Your task to perform on an android device: Open internet settings Image 0: 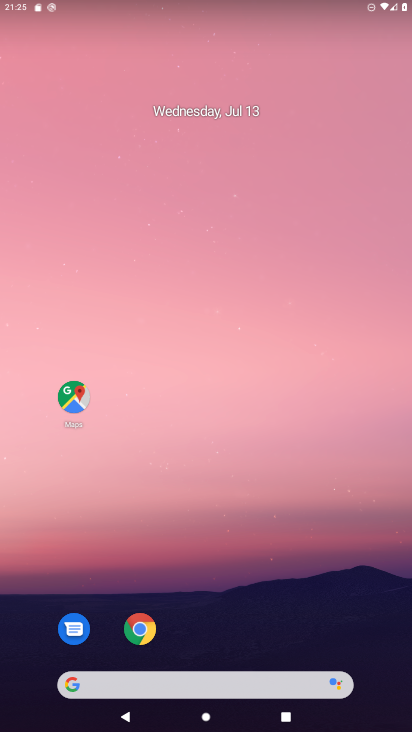
Step 0: drag from (223, 598) to (235, 134)
Your task to perform on an android device: Open internet settings Image 1: 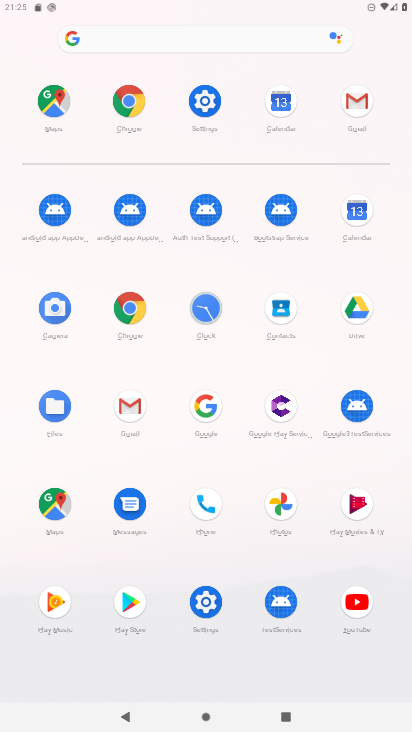
Step 1: click (215, 611)
Your task to perform on an android device: Open internet settings Image 2: 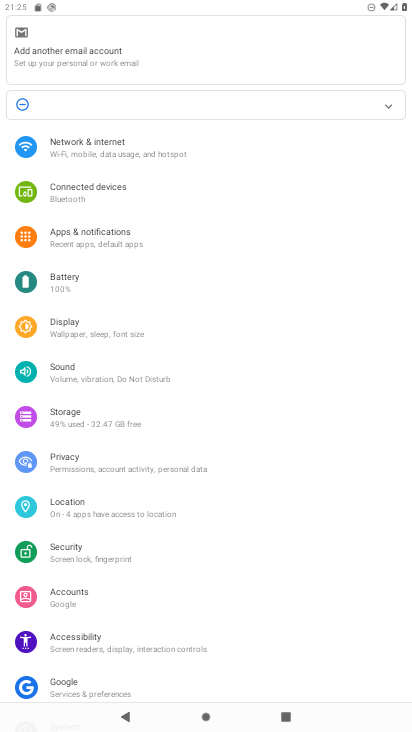
Step 2: click (99, 152)
Your task to perform on an android device: Open internet settings Image 3: 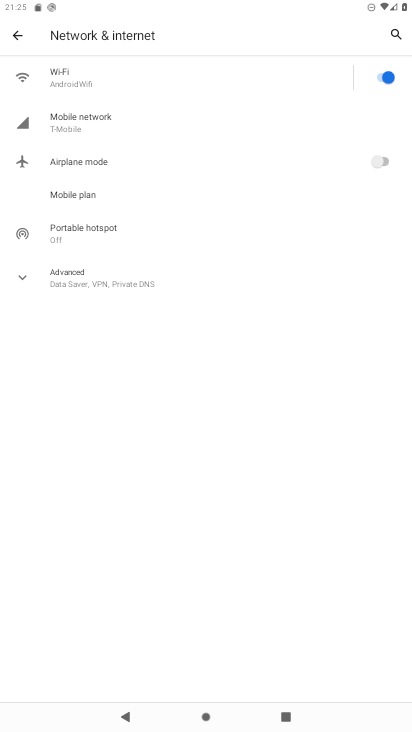
Step 3: task complete